Your task to perform on an android device: Clear the shopping cart on target. Add "razer deathadder" to the cart on target, then select checkout. Image 0: 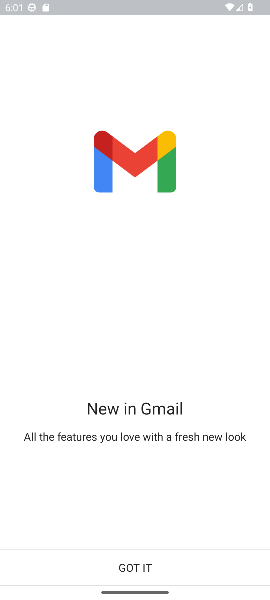
Step 0: press home button
Your task to perform on an android device: Clear the shopping cart on target. Add "razer deathadder" to the cart on target, then select checkout. Image 1: 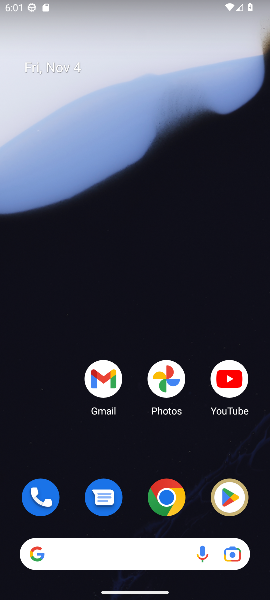
Step 1: click (161, 504)
Your task to perform on an android device: Clear the shopping cart on target. Add "razer deathadder" to the cart on target, then select checkout. Image 2: 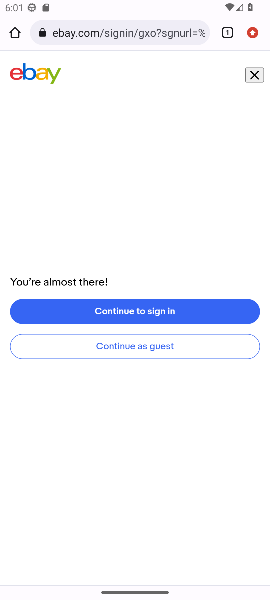
Step 2: click (126, 33)
Your task to perform on an android device: Clear the shopping cart on target. Add "razer deathadder" to the cart on target, then select checkout. Image 3: 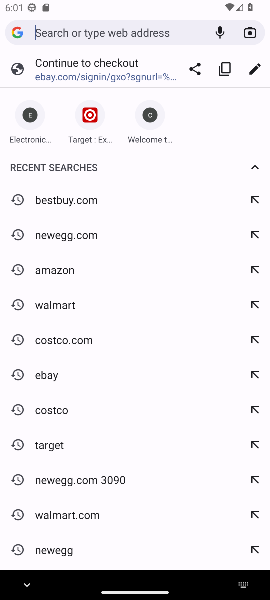
Step 3: click (53, 444)
Your task to perform on an android device: Clear the shopping cart on target. Add "razer deathadder" to the cart on target, then select checkout. Image 4: 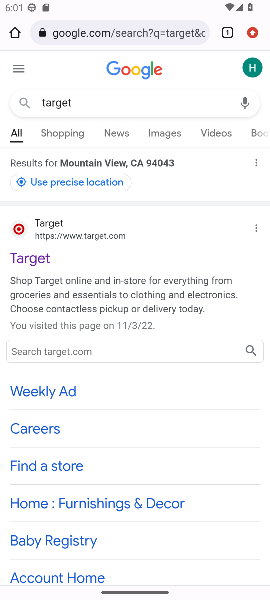
Step 4: click (50, 242)
Your task to perform on an android device: Clear the shopping cart on target. Add "razer deathadder" to the cart on target, then select checkout. Image 5: 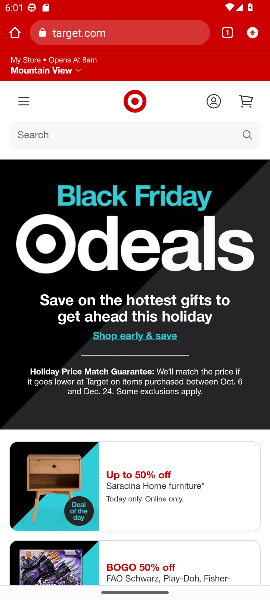
Step 5: click (246, 100)
Your task to perform on an android device: Clear the shopping cart on target. Add "razer deathadder" to the cart on target, then select checkout. Image 6: 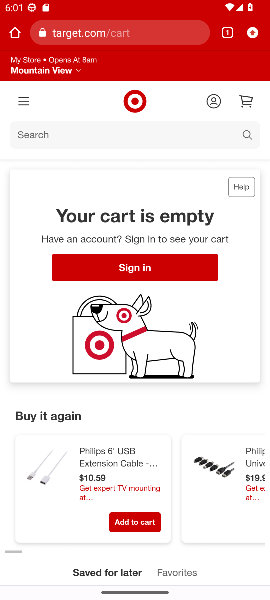
Step 6: click (244, 140)
Your task to perform on an android device: Clear the shopping cart on target. Add "razer deathadder" to the cart on target, then select checkout. Image 7: 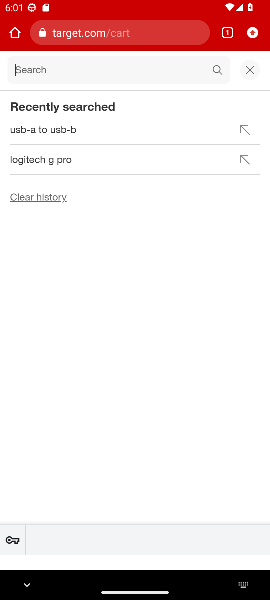
Step 7: type "razer deathadder"
Your task to perform on an android device: Clear the shopping cart on target. Add "razer deathadder" to the cart on target, then select checkout. Image 8: 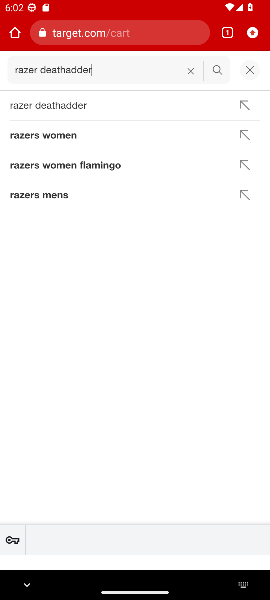
Step 8: click (83, 109)
Your task to perform on an android device: Clear the shopping cart on target. Add "razer deathadder" to the cart on target, then select checkout. Image 9: 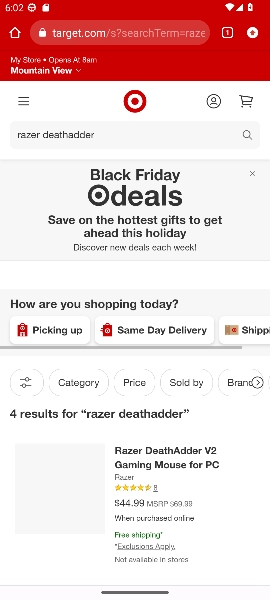
Step 9: drag from (139, 394) to (169, 154)
Your task to perform on an android device: Clear the shopping cart on target. Add "razer deathadder" to the cart on target, then select checkout. Image 10: 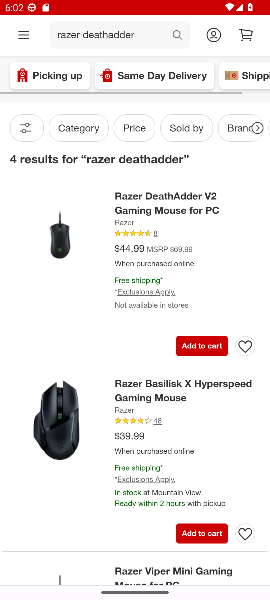
Step 10: click (123, 248)
Your task to perform on an android device: Clear the shopping cart on target. Add "razer deathadder" to the cart on target, then select checkout. Image 11: 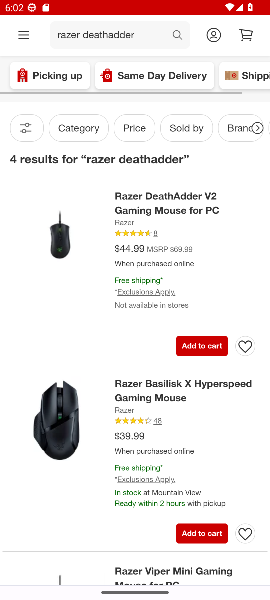
Step 11: click (58, 237)
Your task to perform on an android device: Clear the shopping cart on target. Add "razer deathadder" to the cart on target, then select checkout. Image 12: 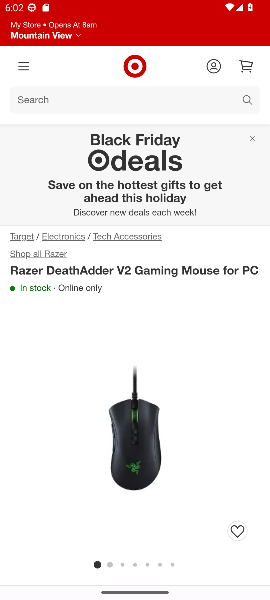
Step 12: drag from (80, 372) to (112, 106)
Your task to perform on an android device: Clear the shopping cart on target. Add "razer deathadder" to the cart on target, then select checkout. Image 13: 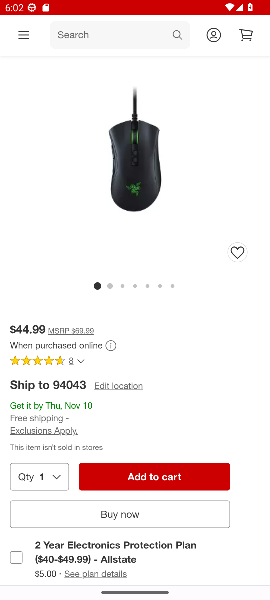
Step 13: click (140, 475)
Your task to perform on an android device: Clear the shopping cart on target. Add "razer deathadder" to the cart on target, then select checkout. Image 14: 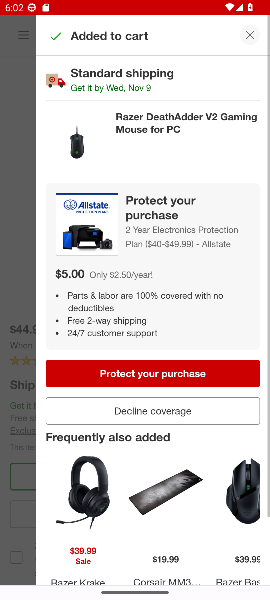
Step 14: click (250, 34)
Your task to perform on an android device: Clear the shopping cart on target. Add "razer deathadder" to the cart on target, then select checkout. Image 15: 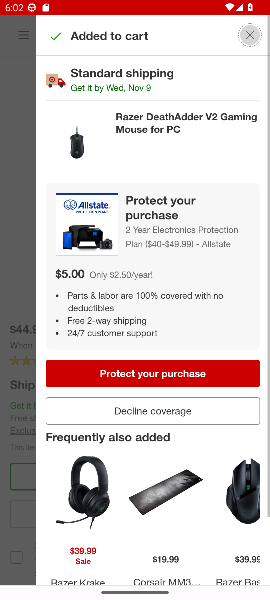
Step 15: click (251, 38)
Your task to perform on an android device: Clear the shopping cart on target. Add "razer deathadder" to the cart on target, then select checkout. Image 16: 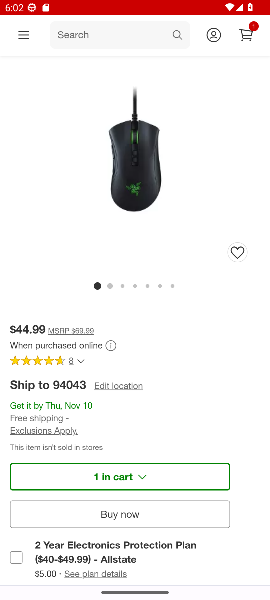
Step 16: click (243, 33)
Your task to perform on an android device: Clear the shopping cart on target. Add "razer deathadder" to the cart on target, then select checkout. Image 17: 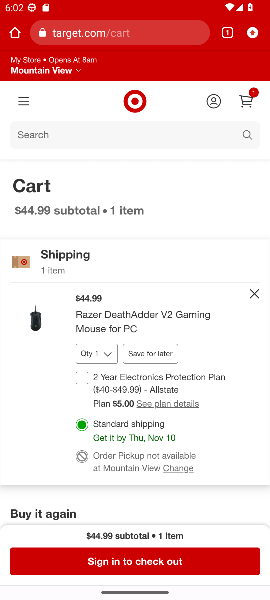
Step 17: click (122, 559)
Your task to perform on an android device: Clear the shopping cart on target. Add "razer deathadder" to the cart on target, then select checkout. Image 18: 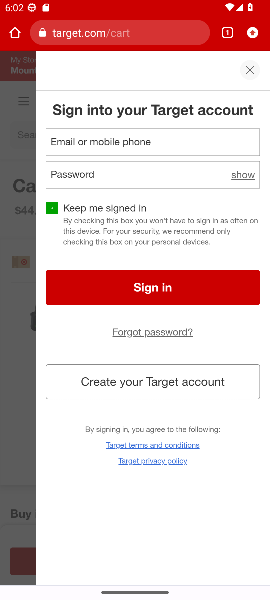
Step 18: click (245, 74)
Your task to perform on an android device: Clear the shopping cart on target. Add "razer deathadder" to the cart on target, then select checkout. Image 19: 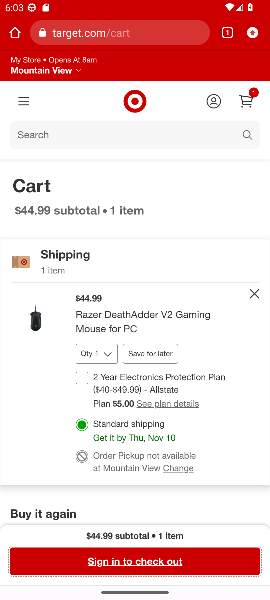
Step 19: click (130, 563)
Your task to perform on an android device: Clear the shopping cart on target. Add "razer deathadder" to the cart on target, then select checkout. Image 20: 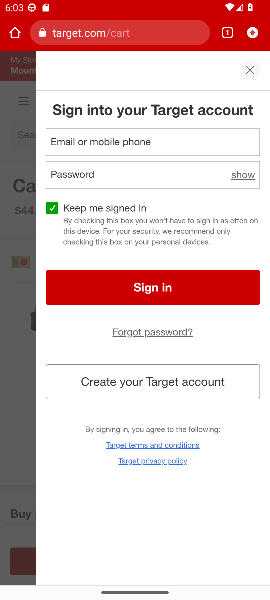
Step 20: task complete